Your task to perform on an android device: Open internet settings Image 0: 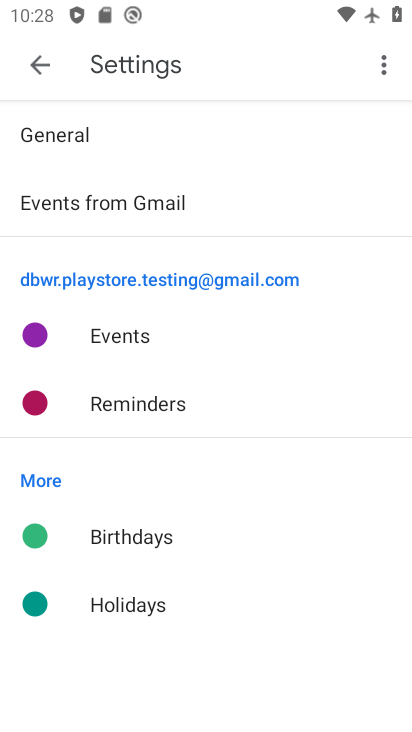
Step 0: press back button
Your task to perform on an android device: Open internet settings Image 1: 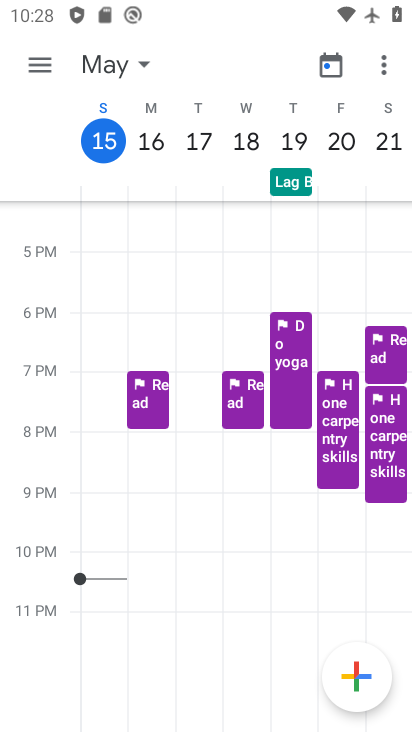
Step 1: press back button
Your task to perform on an android device: Open internet settings Image 2: 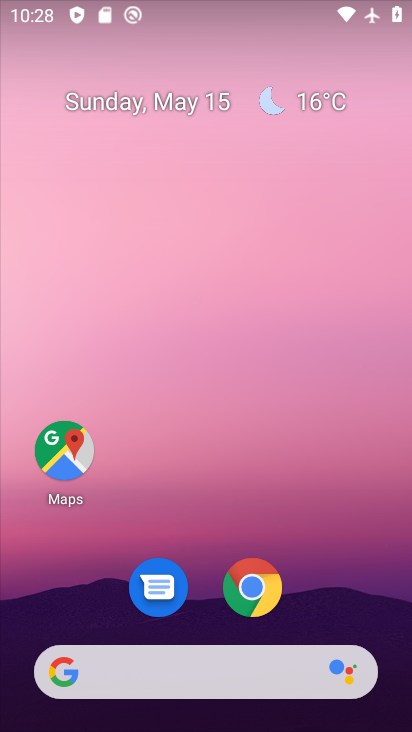
Step 2: drag from (336, 536) to (327, 14)
Your task to perform on an android device: Open internet settings Image 3: 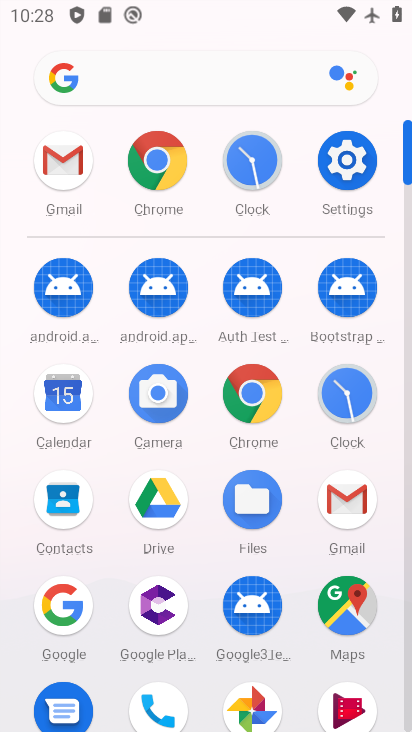
Step 3: click (345, 158)
Your task to perform on an android device: Open internet settings Image 4: 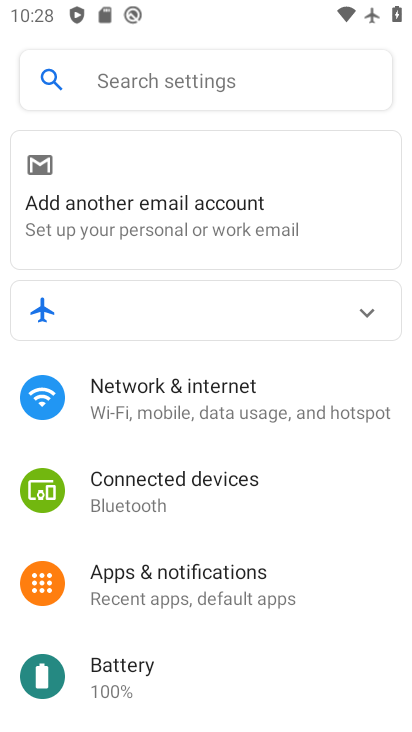
Step 4: click (182, 406)
Your task to perform on an android device: Open internet settings Image 5: 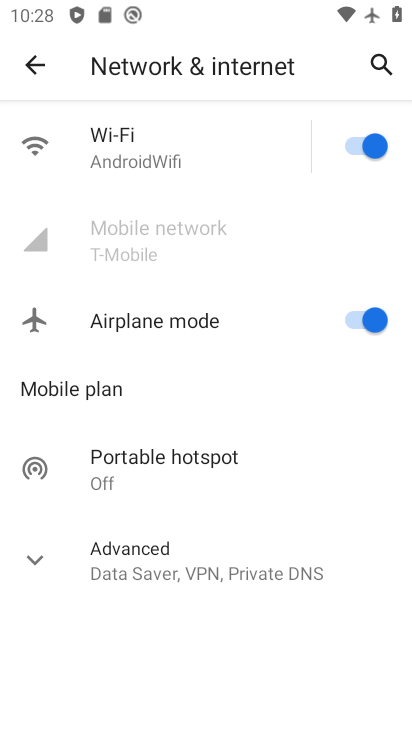
Step 5: click (47, 551)
Your task to perform on an android device: Open internet settings Image 6: 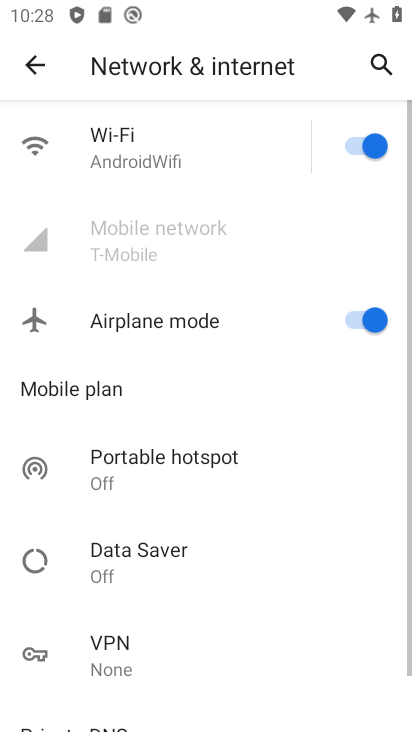
Step 6: task complete